Your task to perform on an android device: How much does a 2 bedroom apartment rent for in Denver? Image 0: 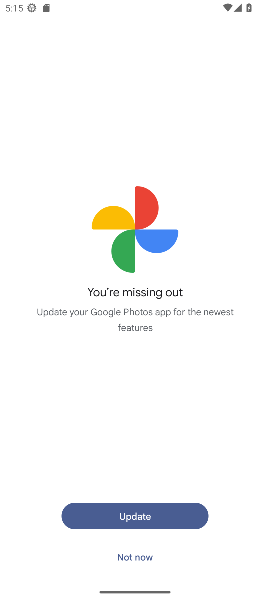
Step 0: press home button
Your task to perform on an android device: How much does a 2 bedroom apartment rent for in Denver? Image 1: 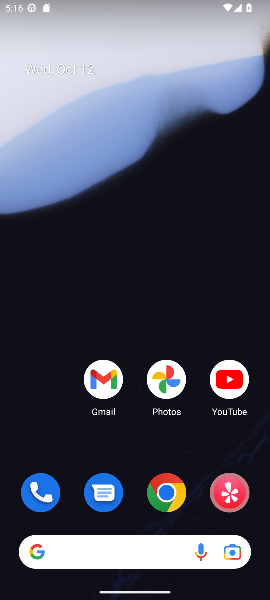
Step 1: click (166, 499)
Your task to perform on an android device: How much does a 2 bedroom apartment rent for in Denver? Image 2: 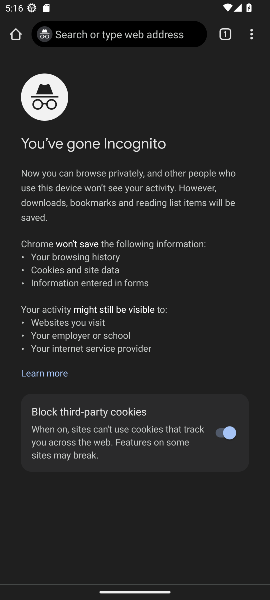
Step 2: click (98, 37)
Your task to perform on an android device: How much does a 2 bedroom apartment rent for in Denver? Image 3: 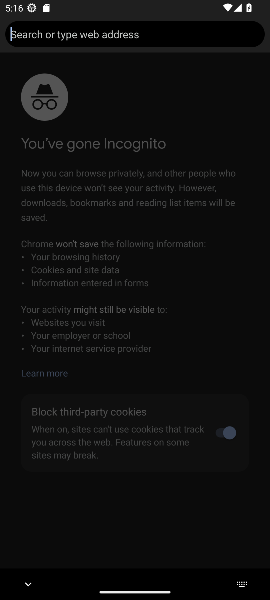
Step 3: type " 2 bedroom apartment rent for in Denver"
Your task to perform on an android device: How much does a 2 bedroom apartment rent for in Denver? Image 4: 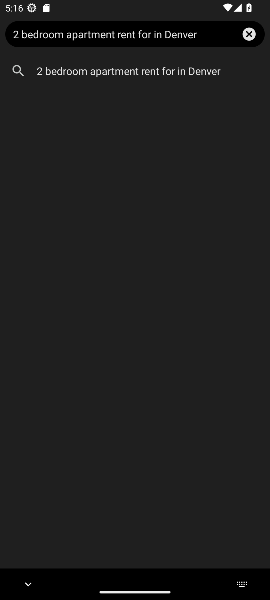
Step 4: click (115, 70)
Your task to perform on an android device: How much does a 2 bedroom apartment rent for in Denver? Image 5: 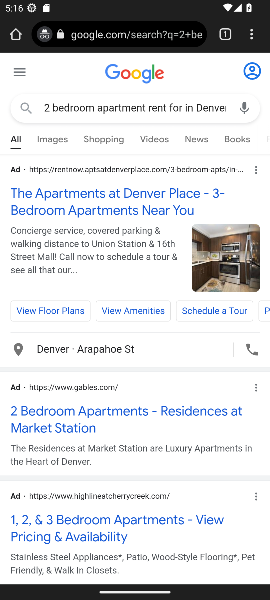
Step 5: drag from (138, 424) to (138, 101)
Your task to perform on an android device: How much does a 2 bedroom apartment rent for in Denver? Image 6: 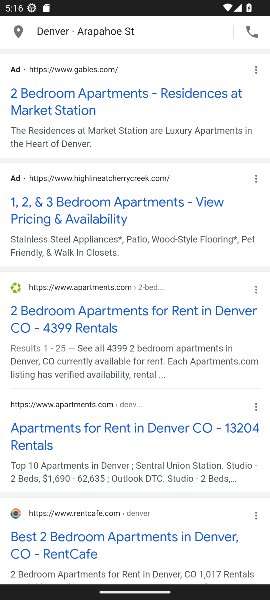
Step 6: drag from (139, 391) to (140, 136)
Your task to perform on an android device: How much does a 2 bedroom apartment rent for in Denver? Image 7: 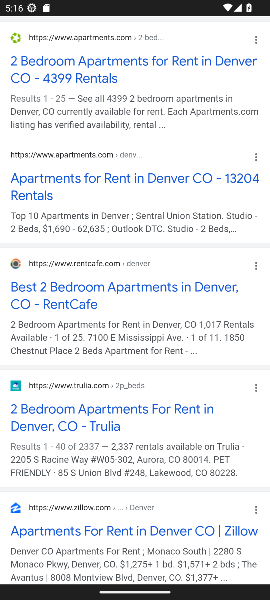
Step 7: click (94, 342)
Your task to perform on an android device: How much does a 2 bedroom apartment rent for in Denver? Image 8: 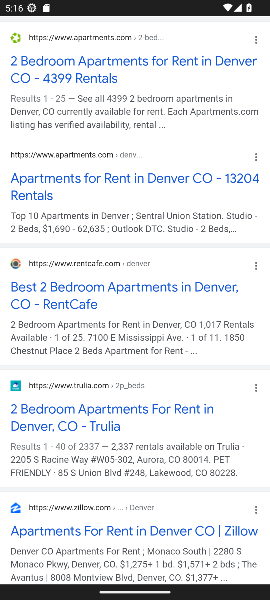
Step 8: click (148, 348)
Your task to perform on an android device: How much does a 2 bedroom apartment rent for in Denver? Image 9: 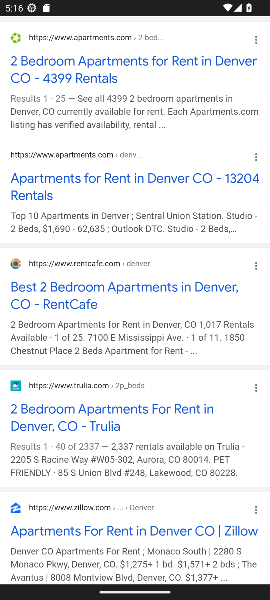
Step 9: click (120, 327)
Your task to perform on an android device: How much does a 2 bedroom apartment rent for in Denver? Image 10: 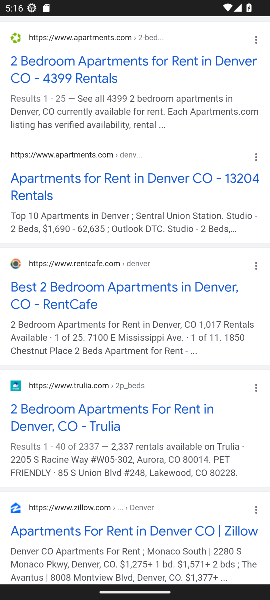
Step 10: click (127, 461)
Your task to perform on an android device: How much does a 2 bedroom apartment rent for in Denver? Image 11: 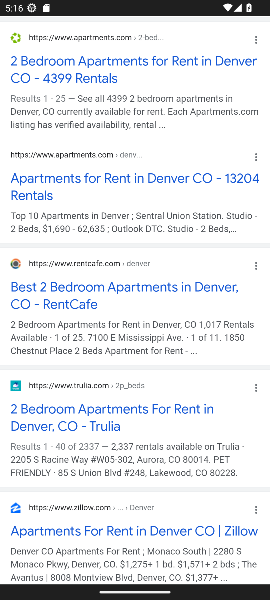
Step 11: drag from (131, 433) to (134, 227)
Your task to perform on an android device: How much does a 2 bedroom apartment rent for in Denver? Image 12: 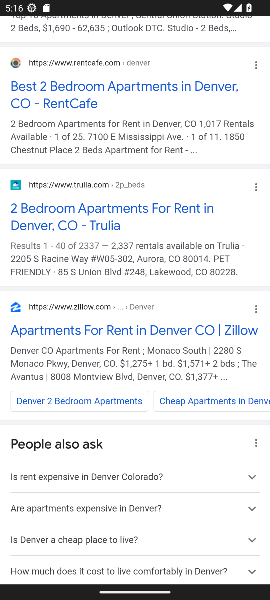
Step 12: drag from (134, 212) to (146, 480)
Your task to perform on an android device: How much does a 2 bedroom apartment rent for in Denver? Image 13: 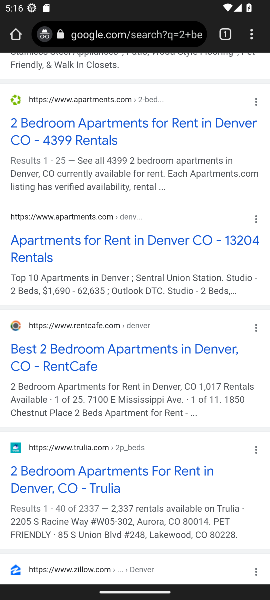
Step 13: click (100, 138)
Your task to perform on an android device: How much does a 2 bedroom apartment rent for in Denver? Image 14: 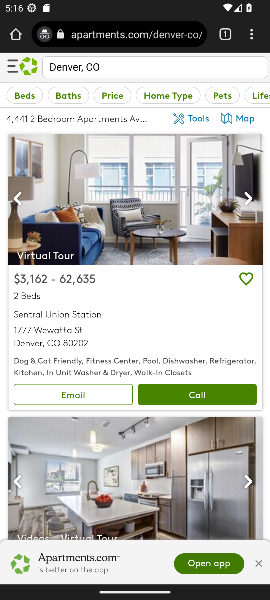
Step 14: task complete